Your task to perform on an android device: Do I have any events today? Image 0: 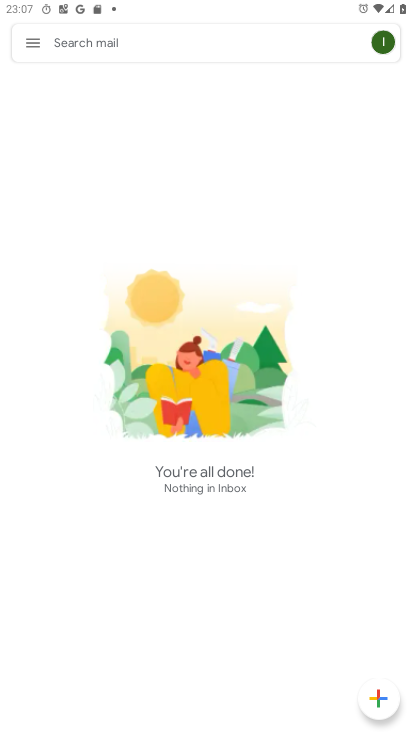
Step 0: press home button
Your task to perform on an android device: Do I have any events today? Image 1: 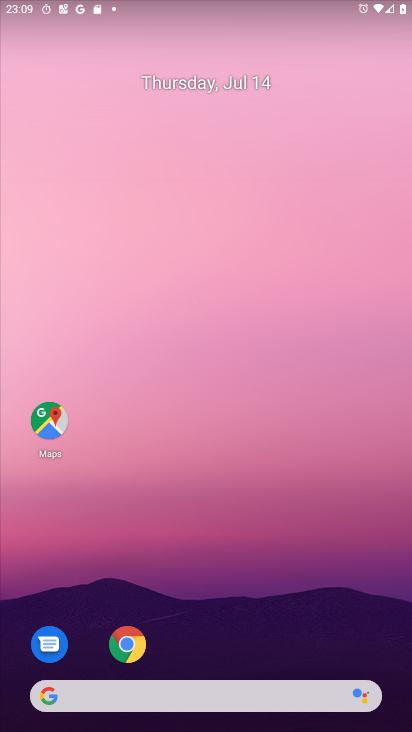
Step 1: click (175, 82)
Your task to perform on an android device: Do I have any events today? Image 2: 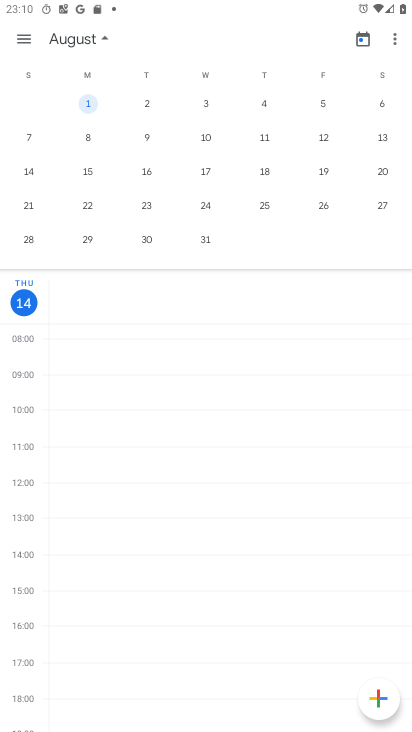
Step 2: task complete